Your task to perform on an android device: What's on my calendar tomorrow? Image 0: 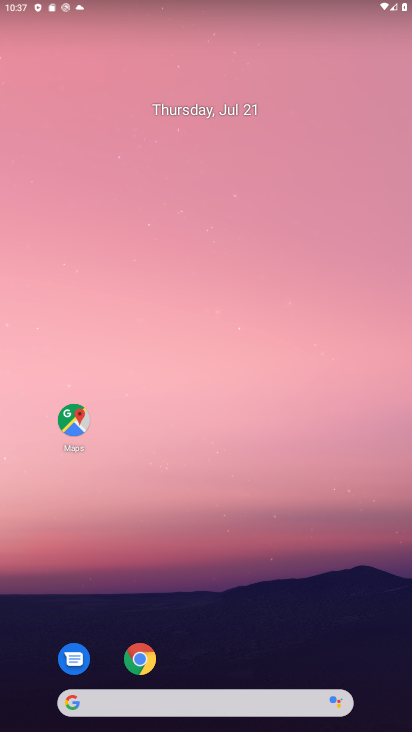
Step 0: task complete